Your task to perform on an android device: turn off improve location accuracy Image 0: 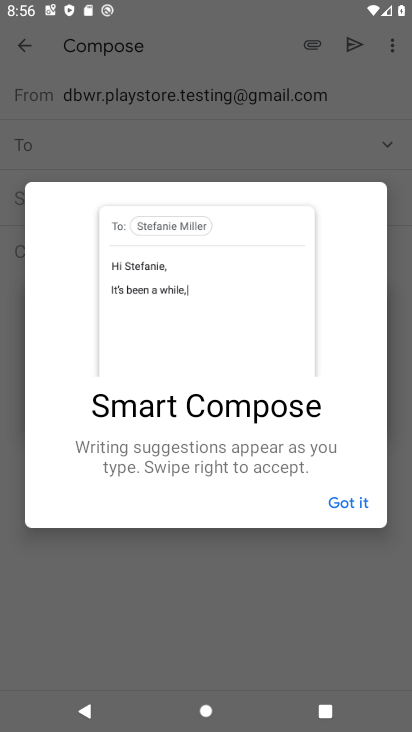
Step 0: press home button
Your task to perform on an android device: turn off improve location accuracy Image 1: 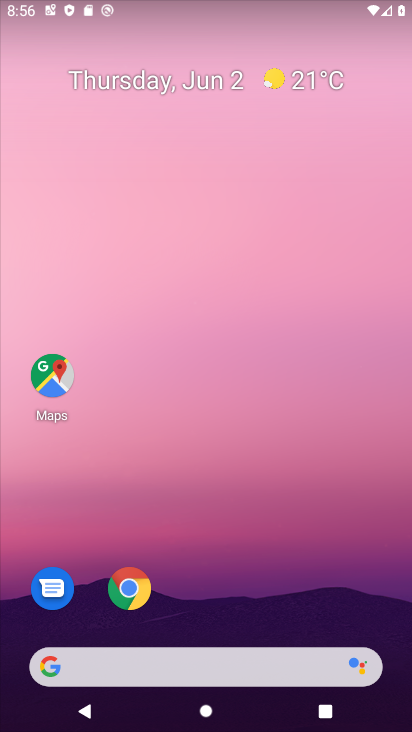
Step 1: drag from (201, 657) to (199, 89)
Your task to perform on an android device: turn off improve location accuracy Image 2: 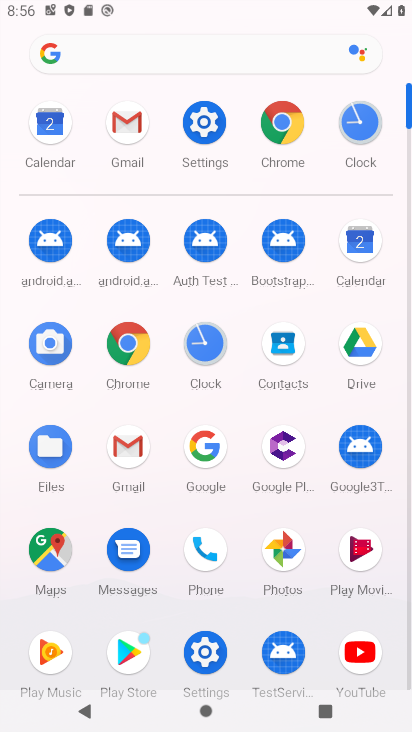
Step 2: click (208, 645)
Your task to perform on an android device: turn off improve location accuracy Image 3: 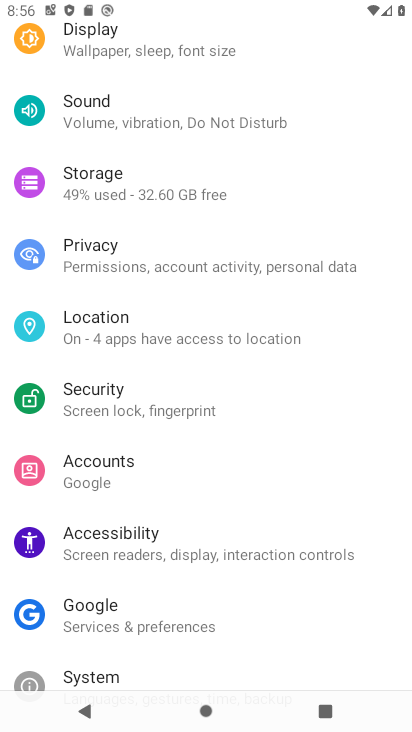
Step 3: click (176, 340)
Your task to perform on an android device: turn off improve location accuracy Image 4: 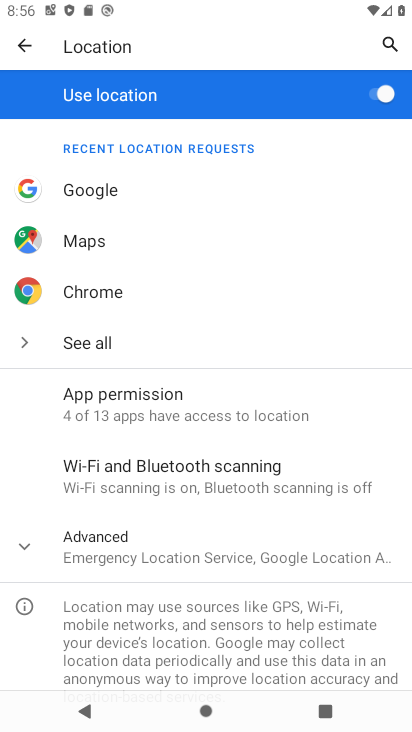
Step 4: press home button
Your task to perform on an android device: turn off improve location accuracy Image 5: 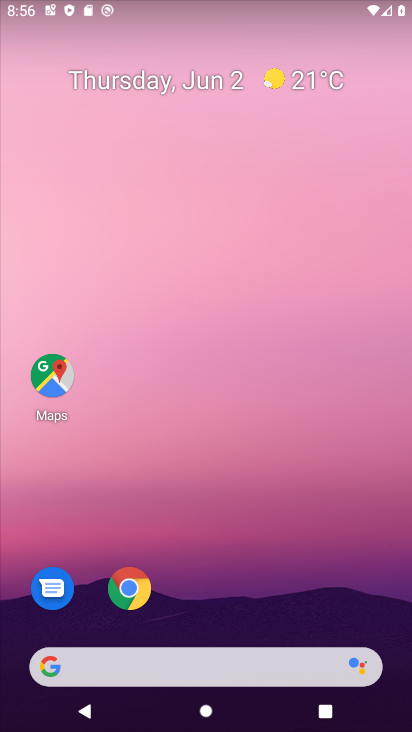
Step 5: drag from (213, 663) to (134, 66)
Your task to perform on an android device: turn off improve location accuracy Image 6: 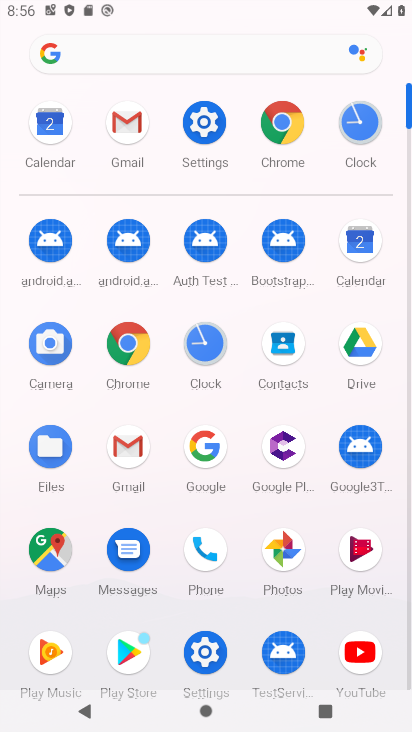
Step 6: click (198, 133)
Your task to perform on an android device: turn off improve location accuracy Image 7: 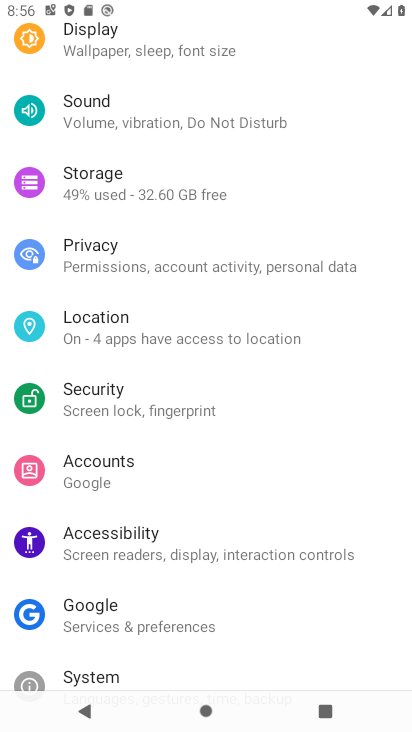
Step 7: click (138, 337)
Your task to perform on an android device: turn off improve location accuracy Image 8: 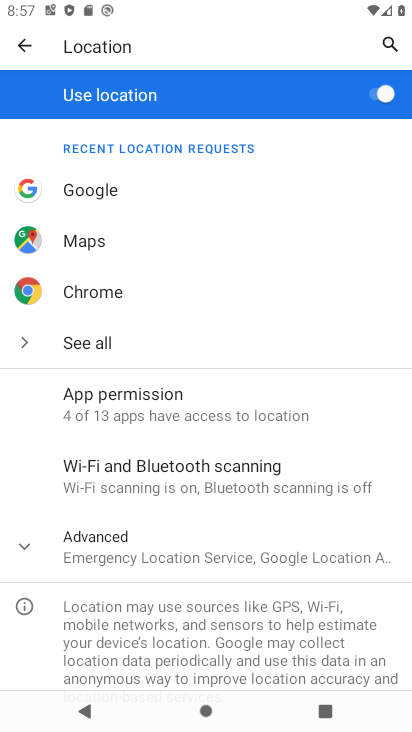
Step 8: click (141, 556)
Your task to perform on an android device: turn off improve location accuracy Image 9: 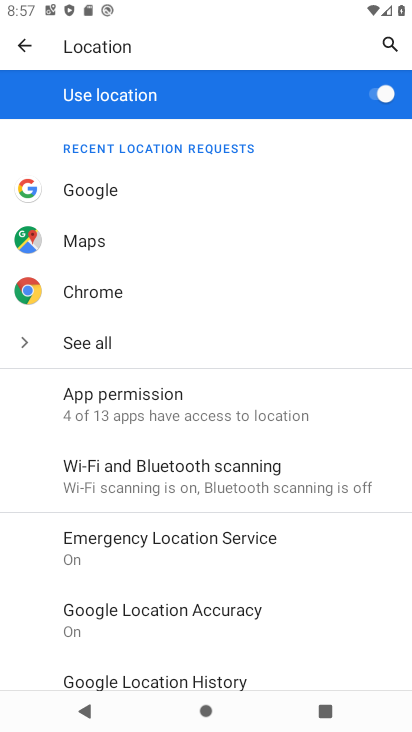
Step 9: click (148, 602)
Your task to perform on an android device: turn off improve location accuracy Image 10: 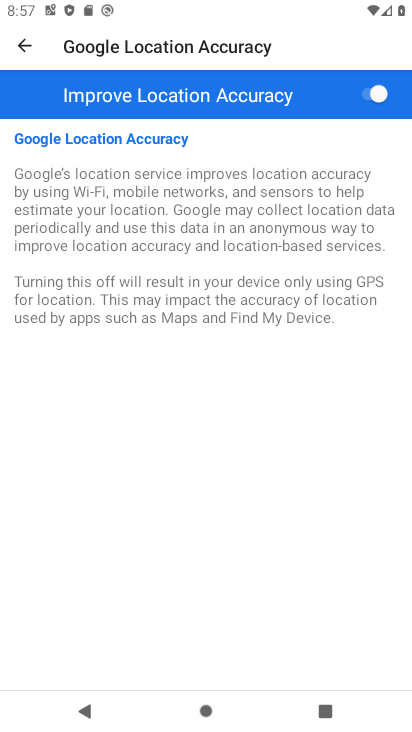
Step 10: click (372, 107)
Your task to perform on an android device: turn off improve location accuracy Image 11: 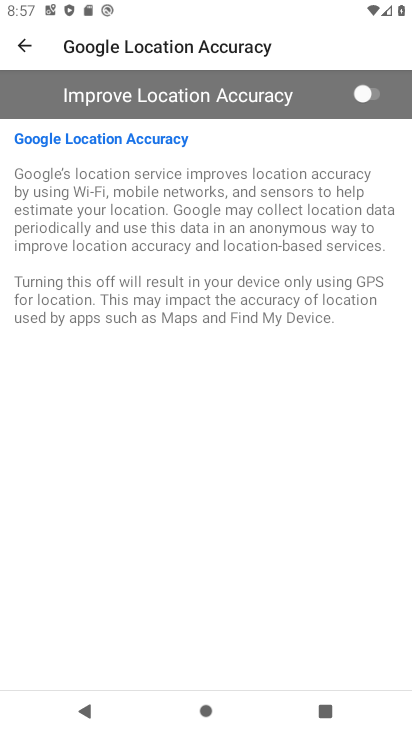
Step 11: task complete